Your task to perform on an android device: add a contact in the contacts app Image 0: 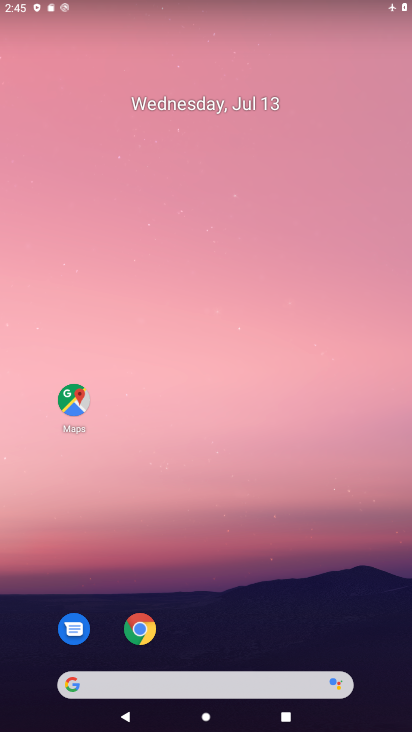
Step 0: drag from (112, 635) to (194, 281)
Your task to perform on an android device: add a contact in the contacts app Image 1: 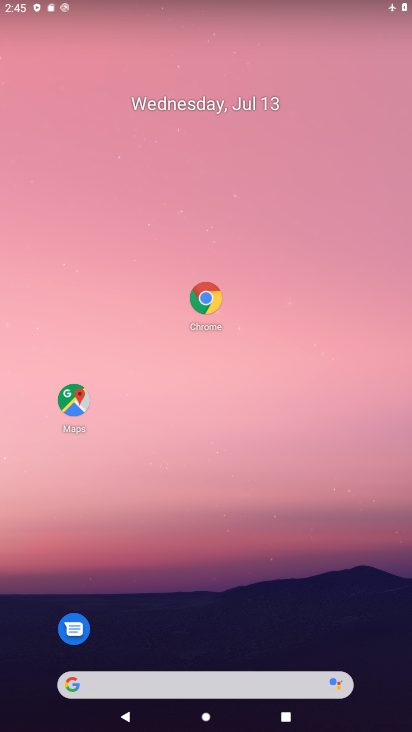
Step 1: drag from (180, 661) to (193, 379)
Your task to perform on an android device: add a contact in the contacts app Image 2: 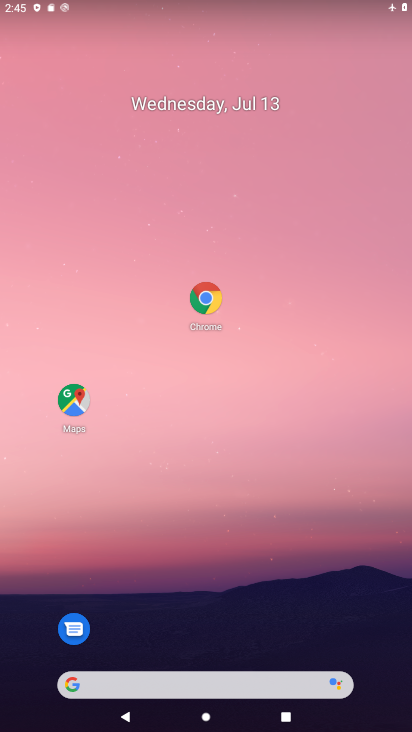
Step 2: drag from (103, 648) to (181, 264)
Your task to perform on an android device: add a contact in the contacts app Image 3: 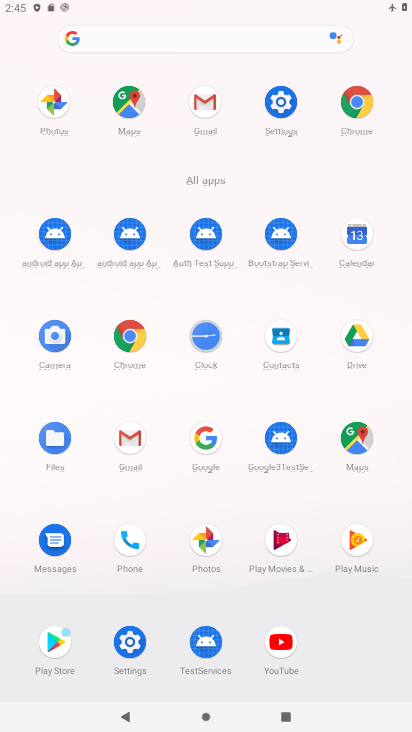
Step 3: click (128, 550)
Your task to perform on an android device: add a contact in the contacts app Image 4: 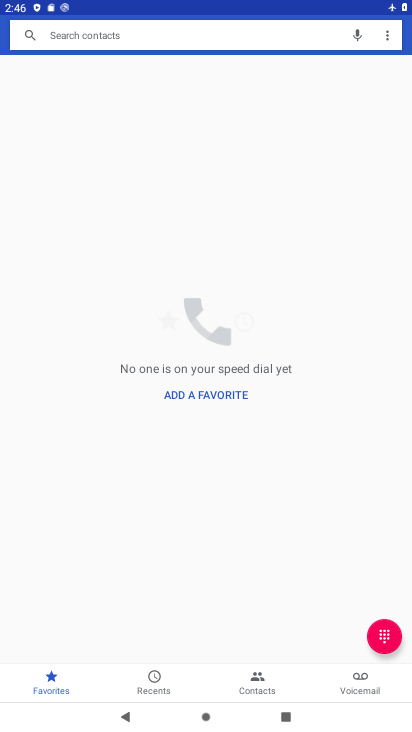
Step 4: click (238, 387)
Your task to perform on an android device: add a contact in the contacts app Image 5: 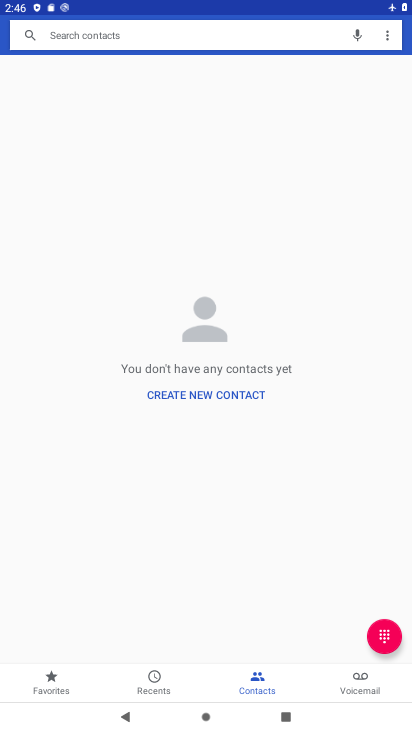
Step 5: click (216, 394)
Your task to perform on an android device: add a contact in the contacts app Image 6: 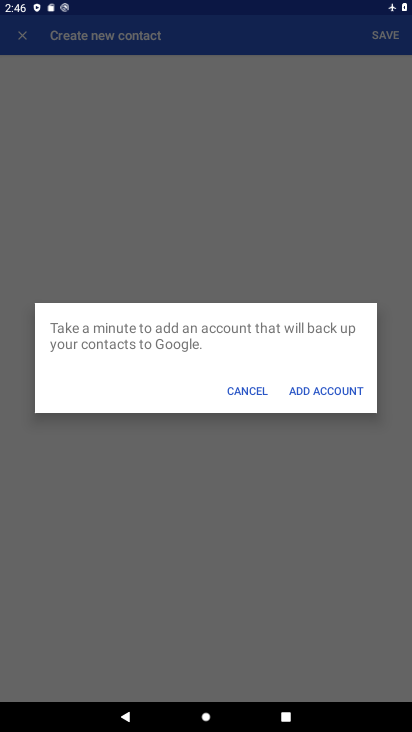
Step 6: click (324, 395)
Your task to perform on an android device: add a contact in the contacts app Image 7: 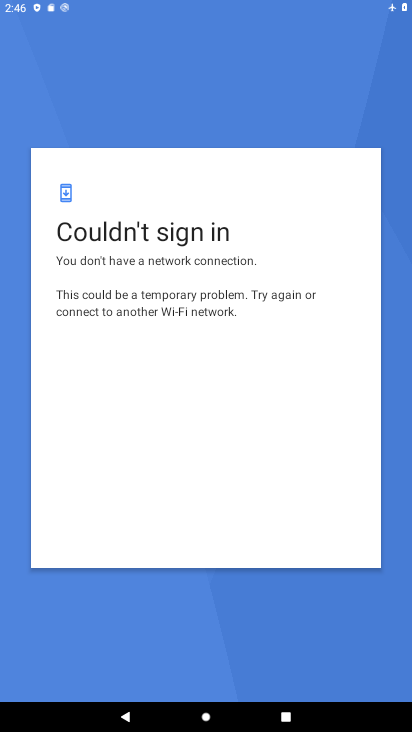
Step 7: task complete